Your task to perform on an android device: Show me productivity apps on the Play Store Image 0: 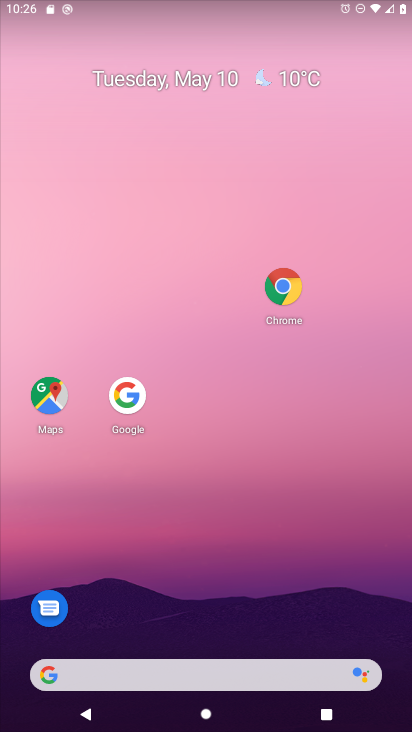
Step 0: drag from (193, 669) to (304, 227)
Your task to perform on an android device: Show me productivity apps on the Play Store Image 1: 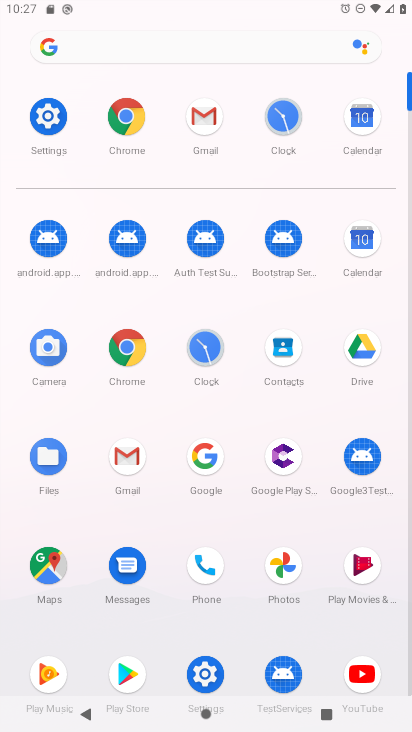
Step 1: click (135, 673)
Your task to perform on an android device: Show me productivity apps on the Play Store Image 2: 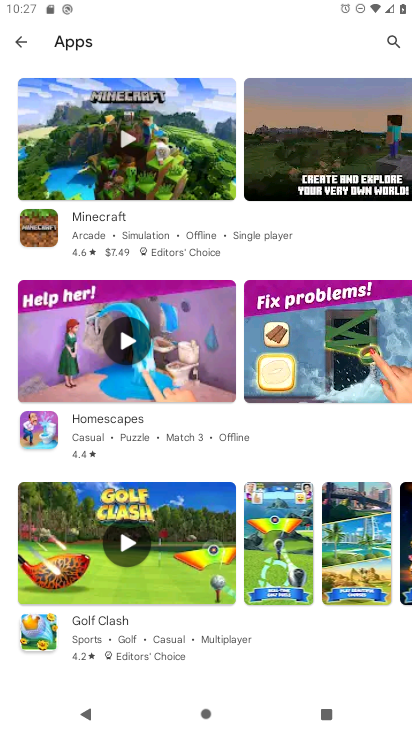
Step 2: click (25, 38)
Your task to perform on an android device: Show me productivity apps on the Play Store Image 3: 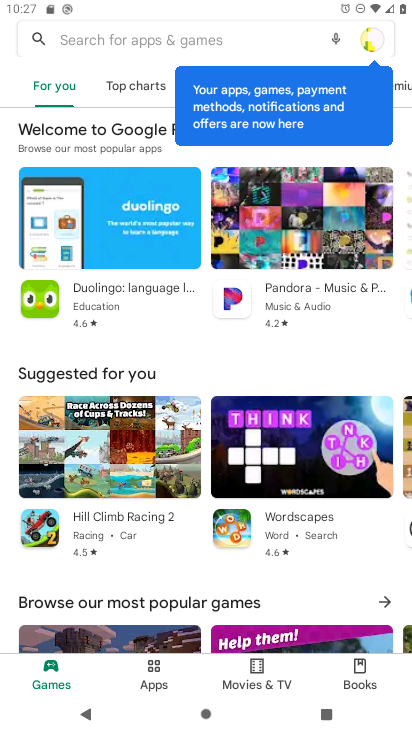
Step 3: click (151, 670)
Your task to perform on an android device: Show me productivity apps on the Play Store Image 4: 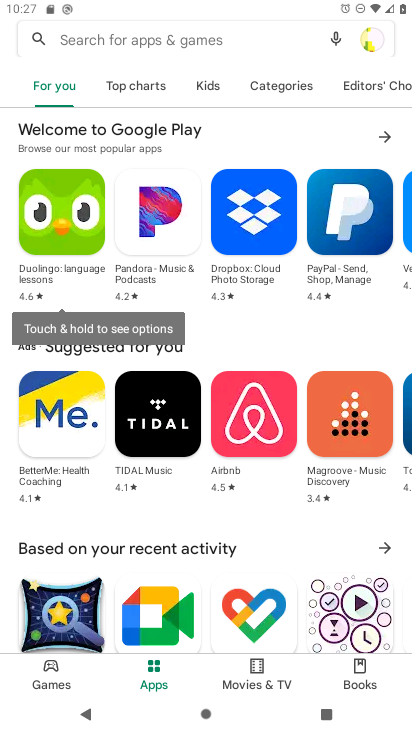
Step 4: click (264, 90)
Your task to perform on an android device: Show me productivity apps on the Play Store Image 5: 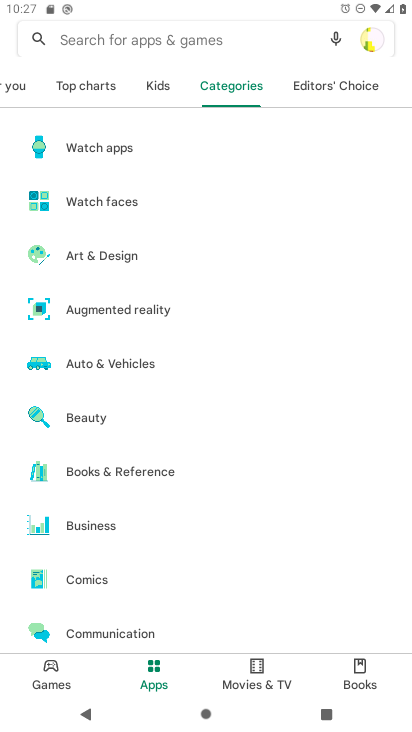
Step 5: drag from (206, 591) to (321, 89)
Your task to perform on an android device: Show me productivity apps on the Play Store Image 6: 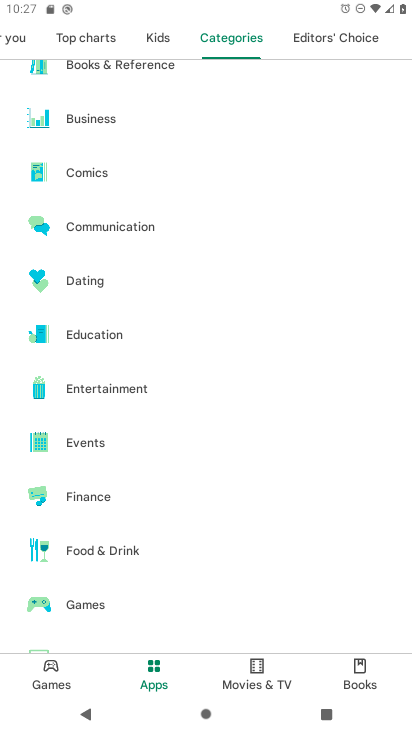
Step 6: drag from (198, 548) to (320, 180)
Your task to perform on an android device: Show me productivity apps on the Play Store Image 7: 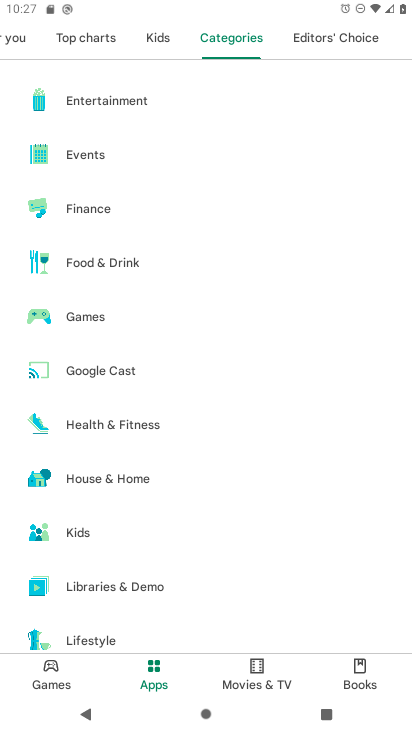
Step 7: drag from (159, 574) to (350, 7)
Your task to perform on an android device: Show me productivity apps on the Play Store Image 8: 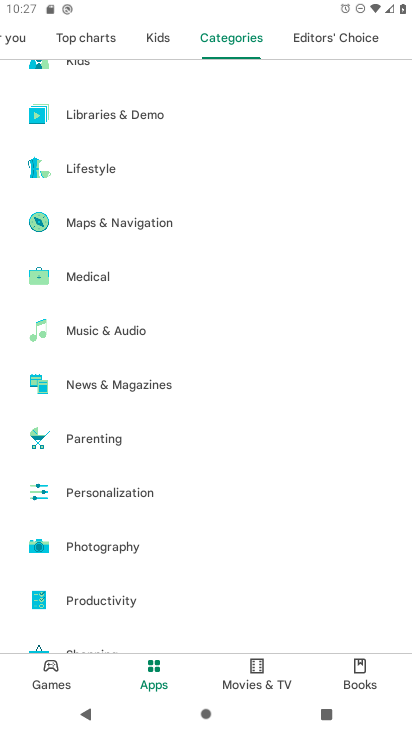
Step 8: click (127, 603)
Your task to perform on an android device: Show me productivity apps on the Play Store Image 9: 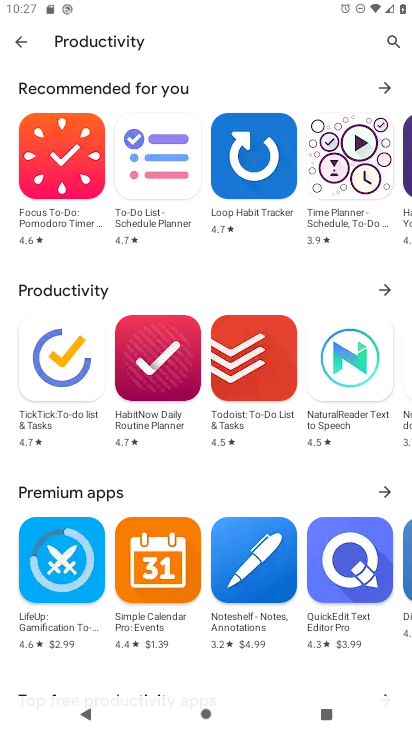
Step 9: task complete